Your task to perform on an android device: Do I have any events today? Image 0: 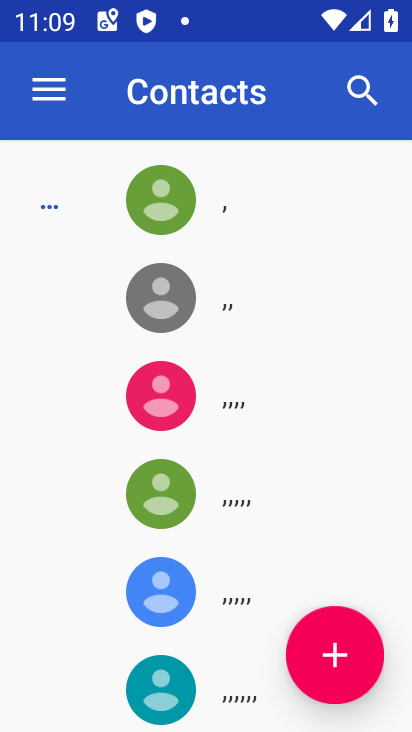
Step 0: press home button
Your task to perform on an android device: Do I have any events today? Image 1: 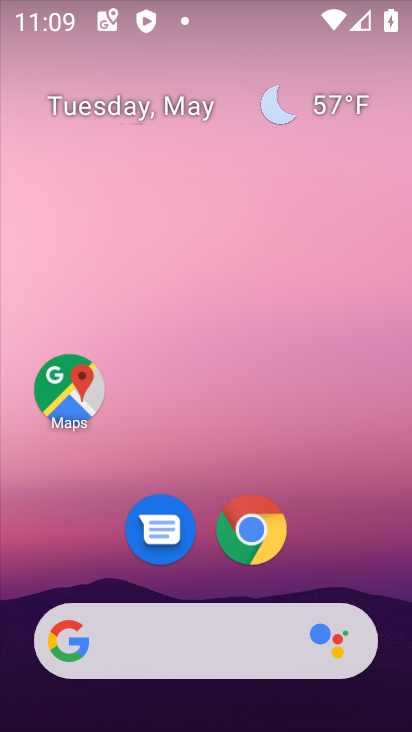
Step 1: click (132, 121)
Your task to perform on an android device: Do I have any events today? Image 2: 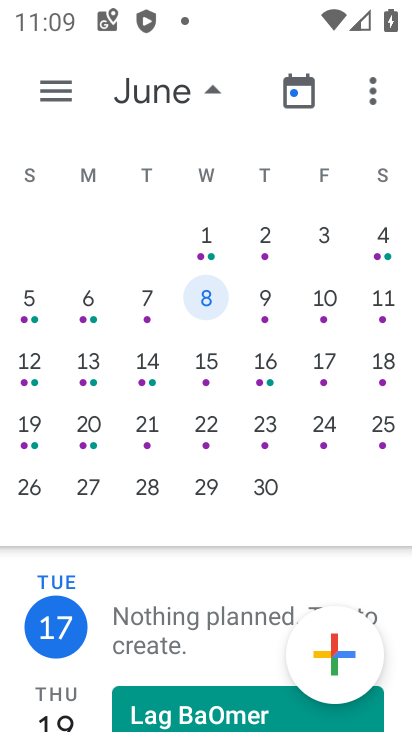
Step 2: task complete